Your task to perform on an android device: Add "energizer triple a" to the cart on amazon Image 0: 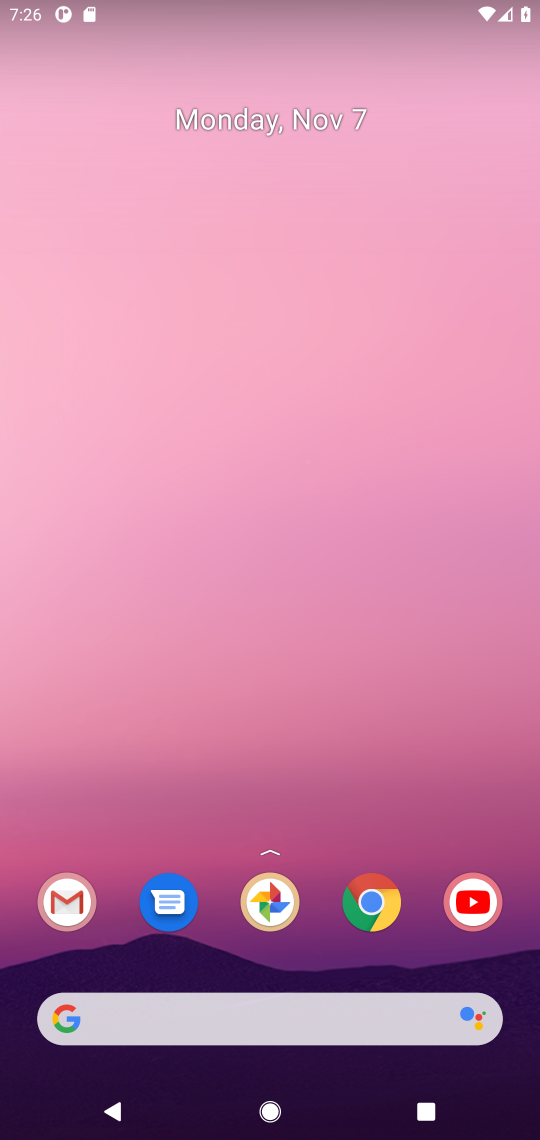
Step 0: click (366, 905)
Your task to perform on an android device: Add "energizer triple a" to the cart on amazon Image 1: 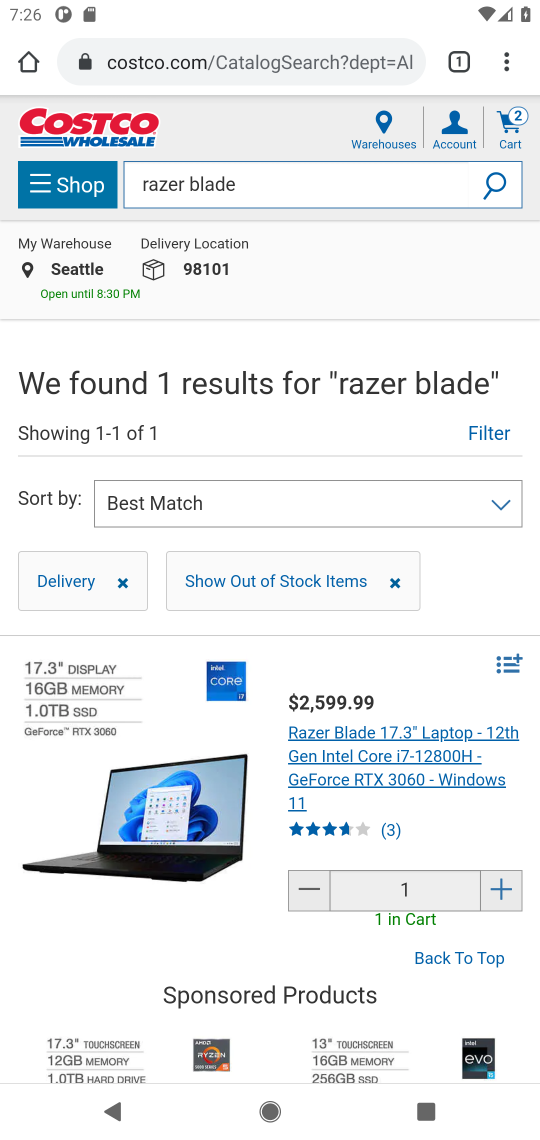
Step 1: click (221, 65)
Your task to perform on an android device: Add "energizer triple a" to the cart on amazon Image 2: 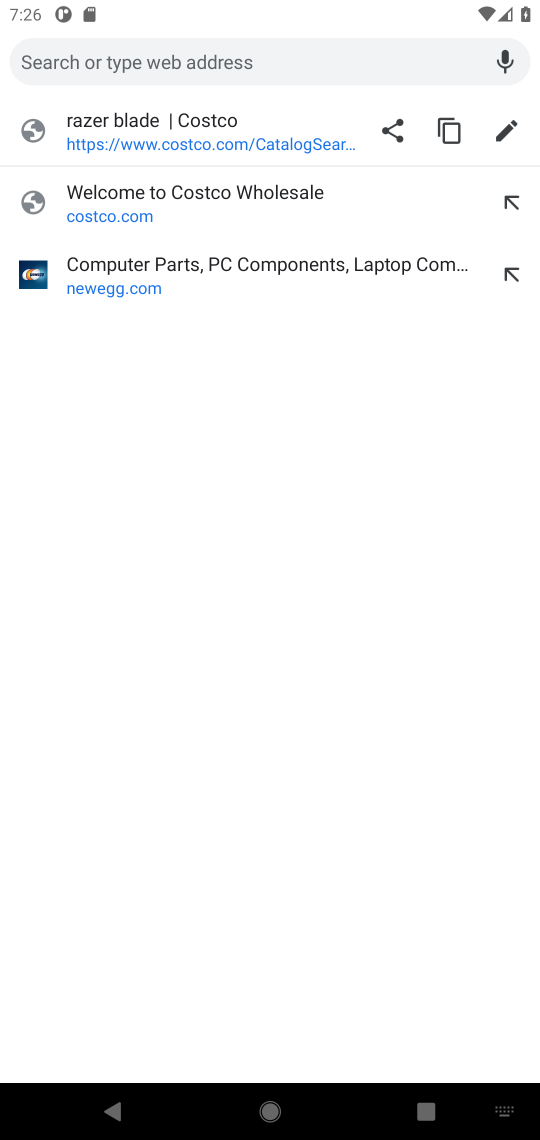
Step 2: type "amazon.com"
Your task to perform on an android device: Add "energizer triple a" to the cart on amazon Image 3: 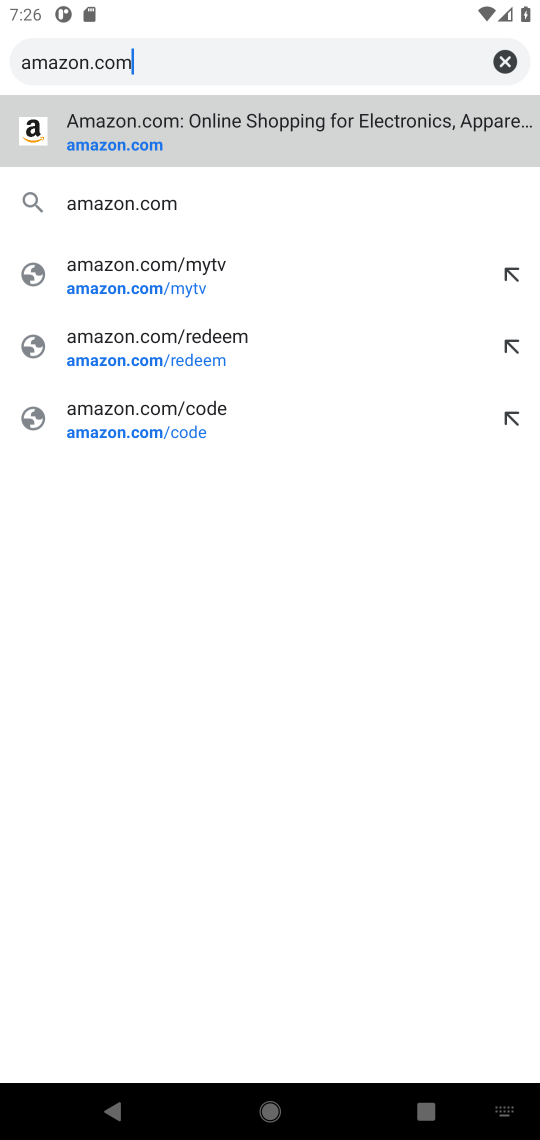
Step 3: click (102, 151)
Your task to perform on an android device: Add "energizer triple a" to the cart on amazon Image 4: 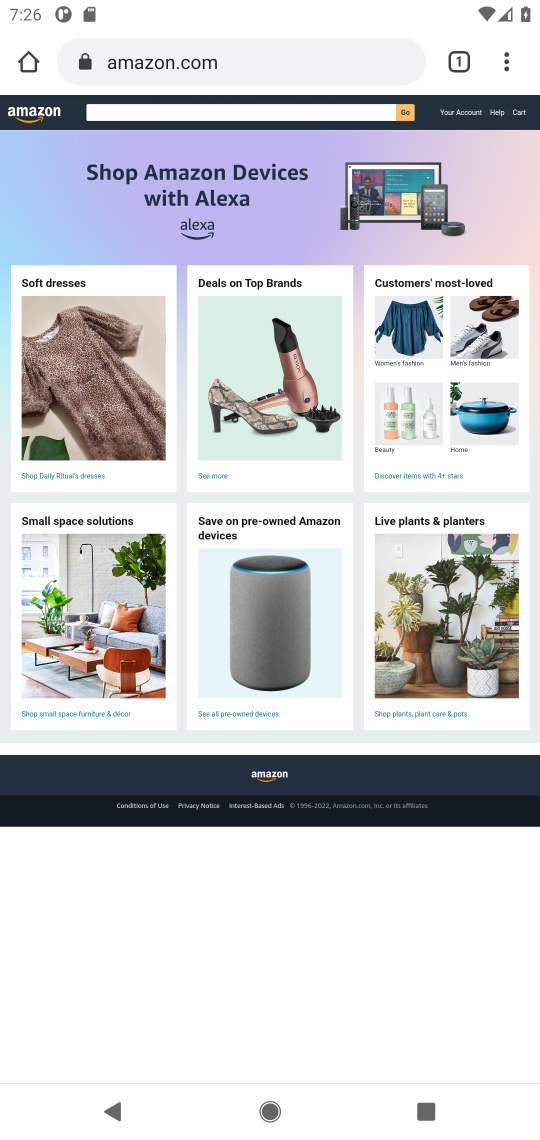
Step 4: click (151, 110)
Your task to perform on an android device: Add "energizer triple a" to the cart on amazon Image 5: 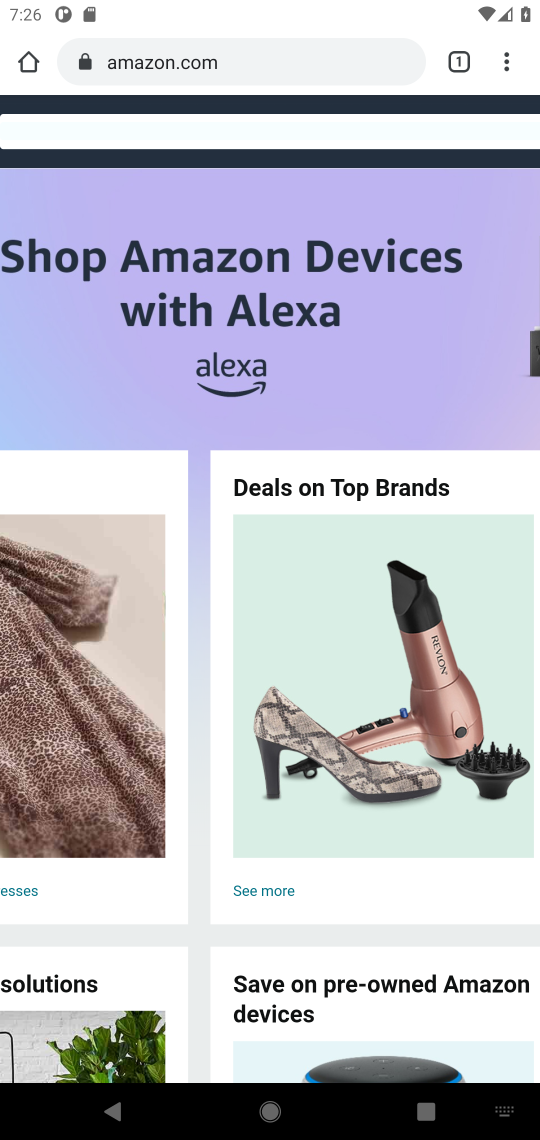
Step 5: type "energizer triple a"
Your task to perform on an android device: Add "energizer triple a" to the cart on amazon Image 6: 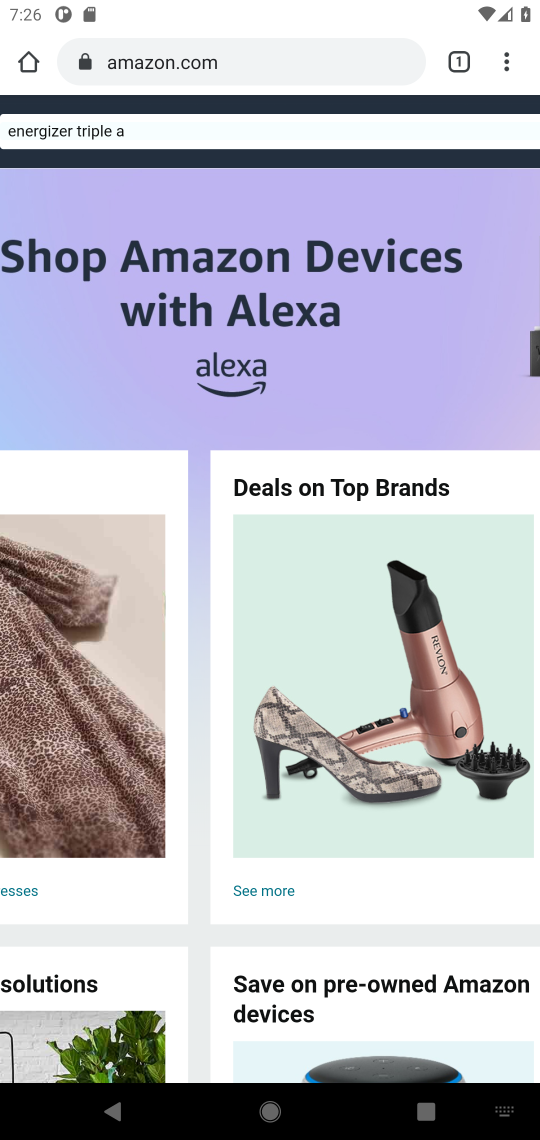
Step 6: click (284, 126)
Your task to perform on an android device: Add "energizer triple a" to the cart on amazon Image 7: 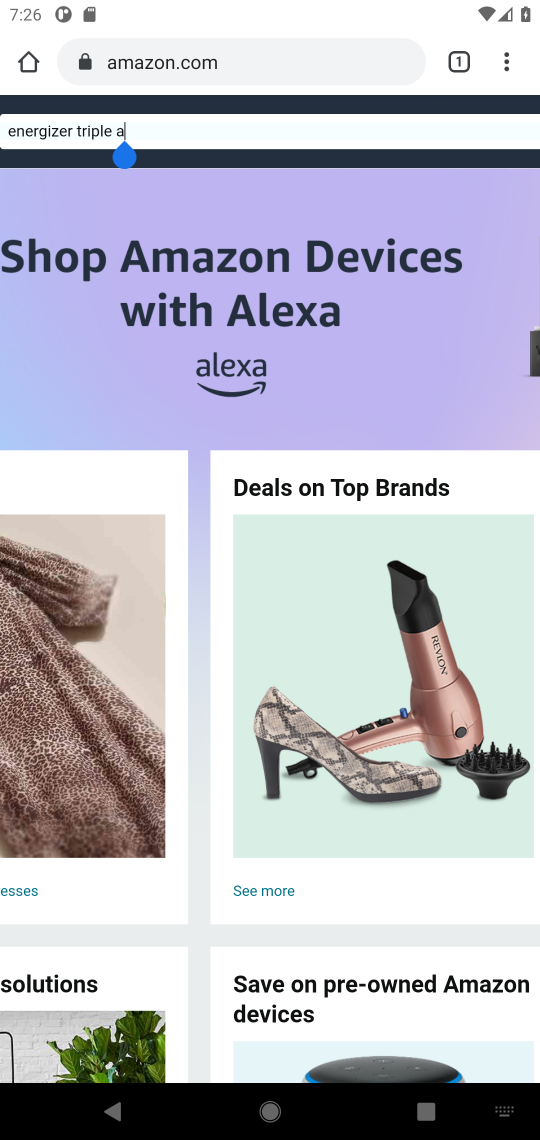
Step 7: click (291, 132)
Your task to perform on an android device: Add "energizer triple a" to the cart on amazon Image 8: 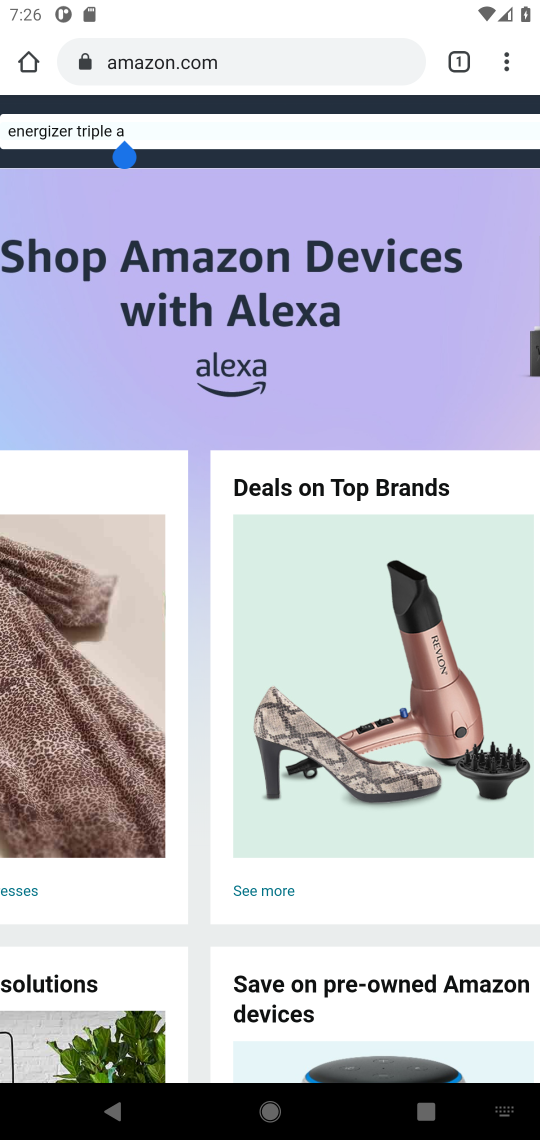
Step 8: drag from (373, 133) to (134, 153)
Your task to perform on an android device: Add "energizer triple a" to the cart on amazon Image 9: 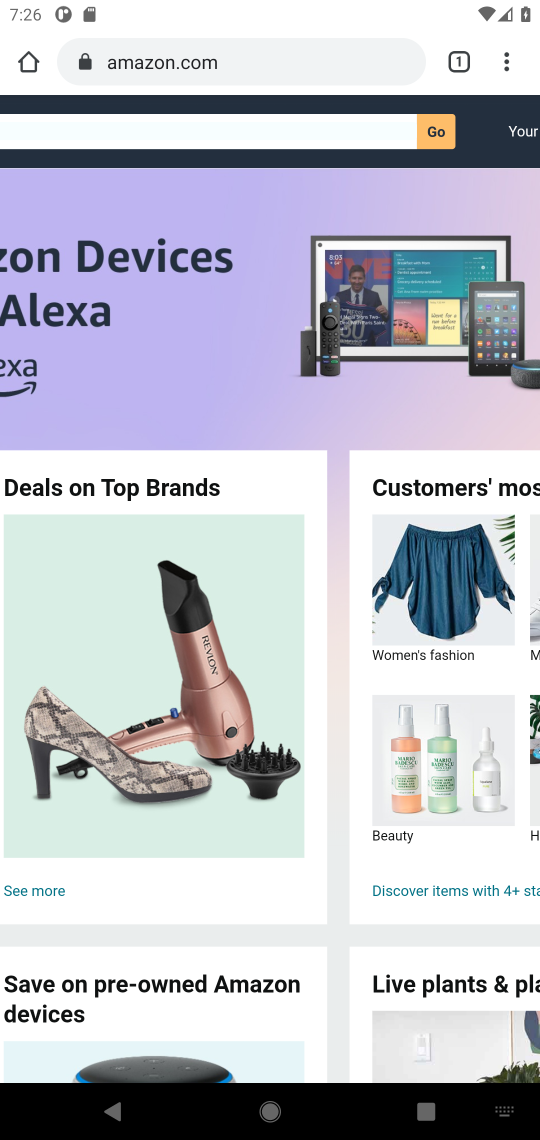
Step 9: click (430, 132)
Your task to perform on an android device: Add "energizer triple a" to the cart on amazon Image 10: 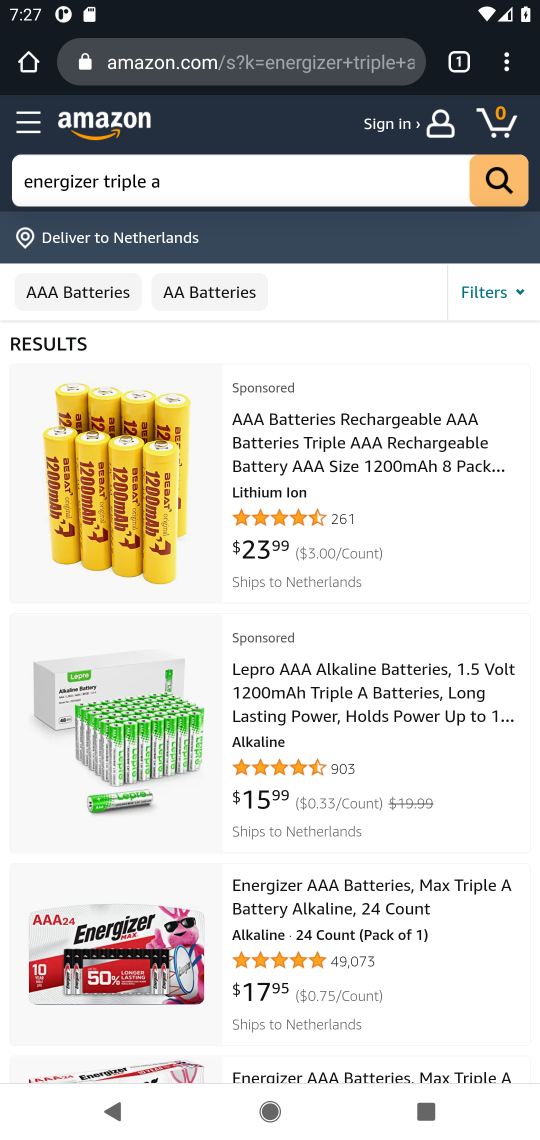
Step 10: click (133, 956)
Your task to perform on an android device: Add "energizer triple a" to the cart on amazon Image 11: 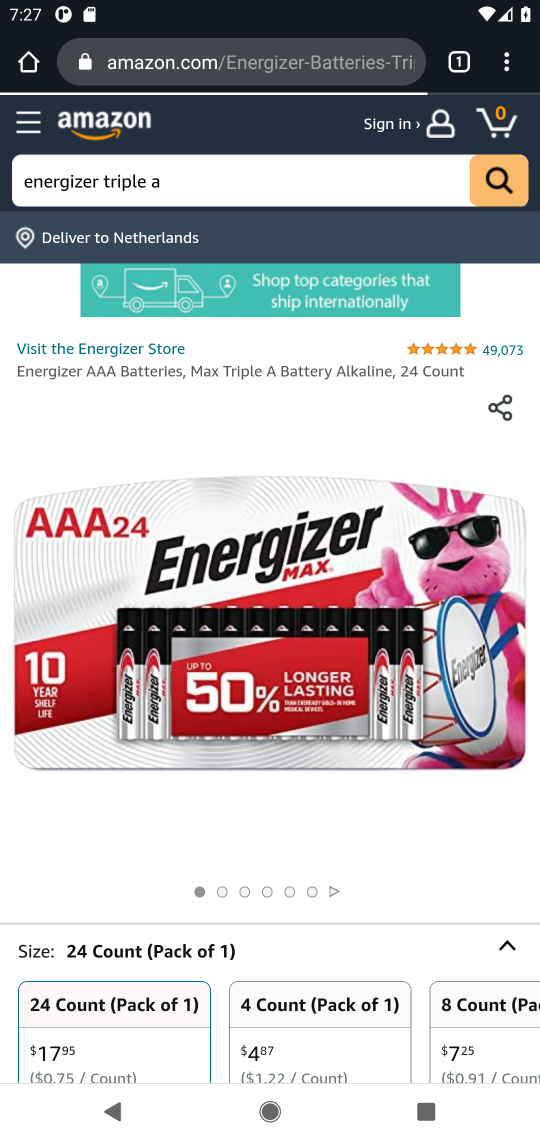
Step 11: drag from (314, 913) to (347, 429)
Your task to perform on an android device: Add "energizer triple a" to the cart on amazon Image 12: 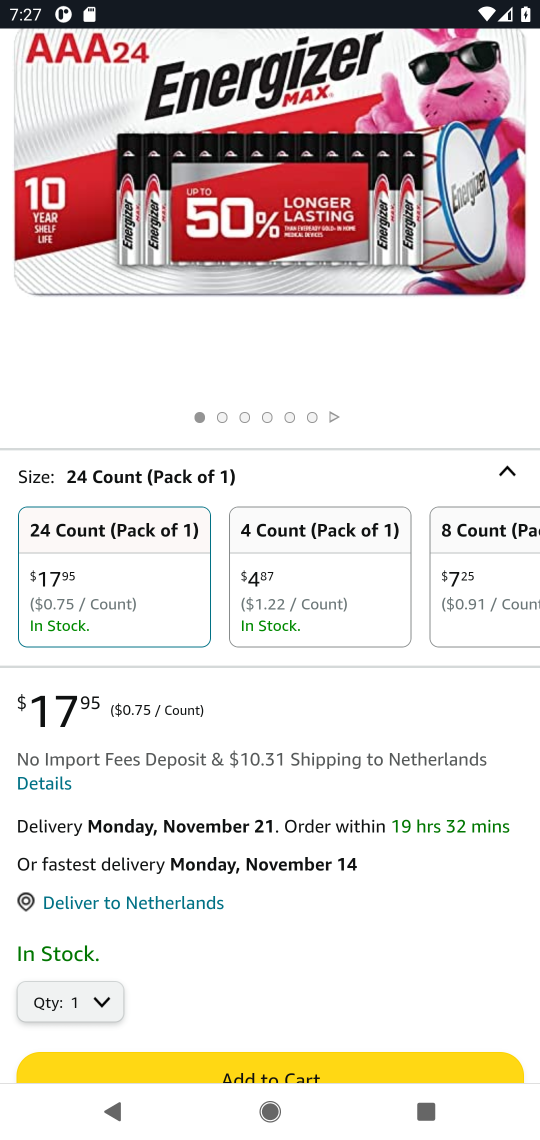
Step 12: drag from (254, 943) to (277, 609)
Your task to perform on an android device: Add "energizer triple a" to the cart on amazon Image 13: 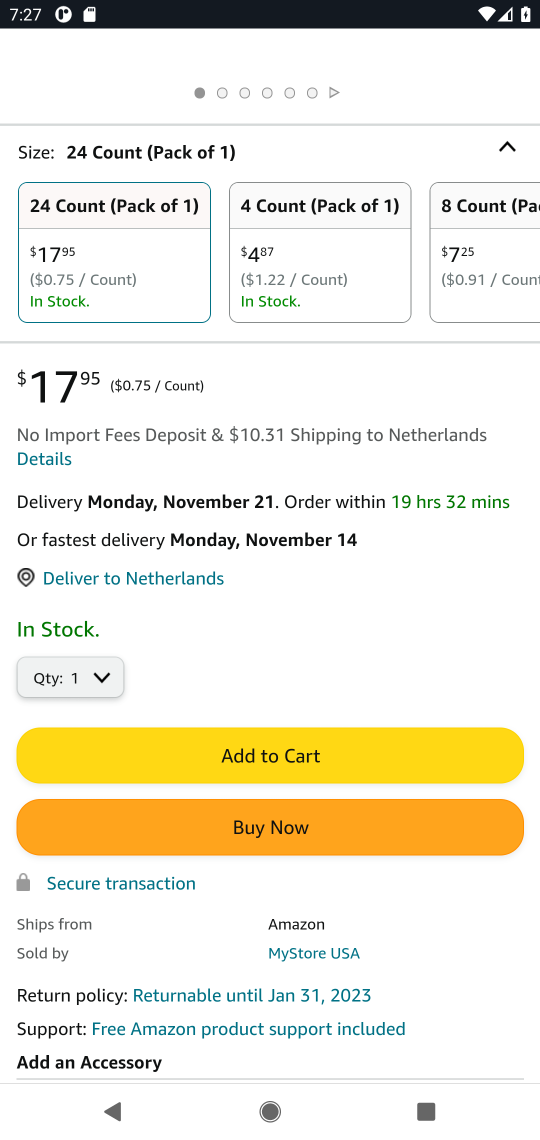
Step 13: click (279, 760)
Your task to perform on an android device: Add "energizer triple a" to the cart on amazon Image 14: 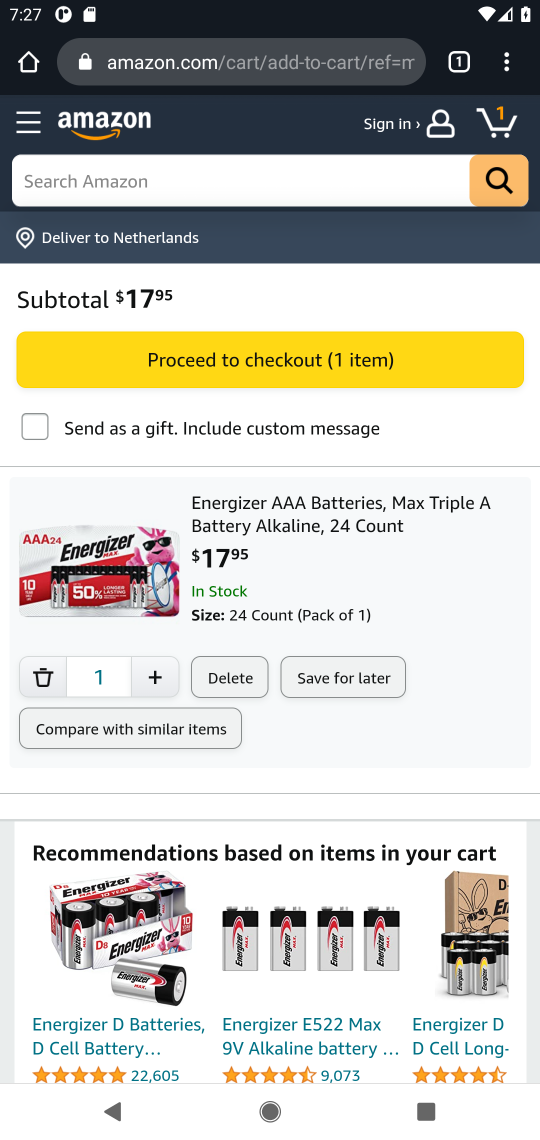
Step 14: task complete